Your task to perform on an android device: Go to sound settings Image 0: 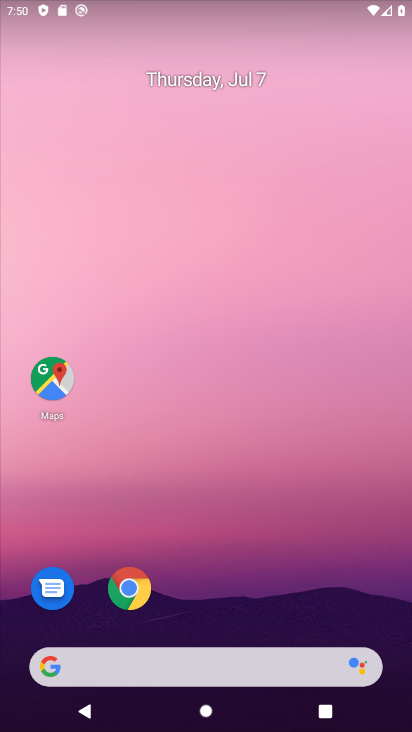
Step 0: drag from (50, 716) to (208, 95)
Your task to perform on an android device: Go to sound settings Image 1: 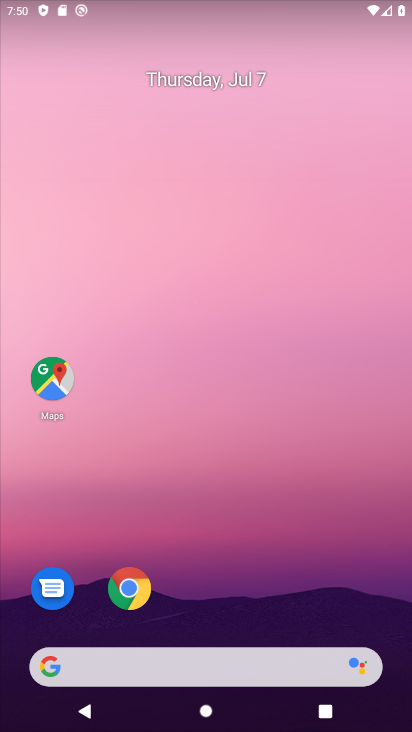
Step 1: drag from (25, 711) to (235, 8)
Your task to perform on an android device: Go to sound settings Image 2: 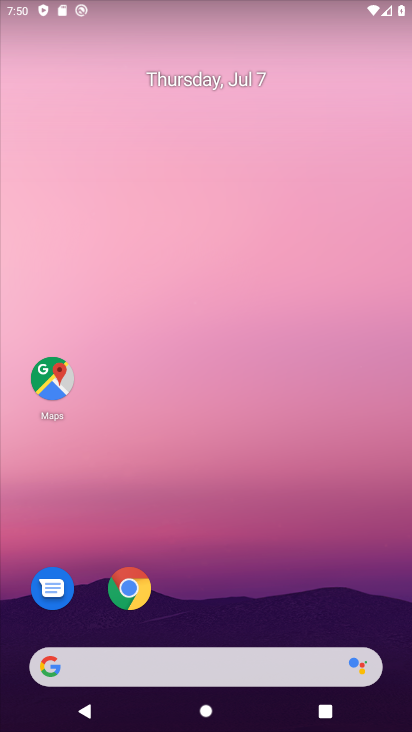
Step 2: drag from (27, 709) to (247, 5)
Your task to perform on an android device: Go to sound settings Image 3: 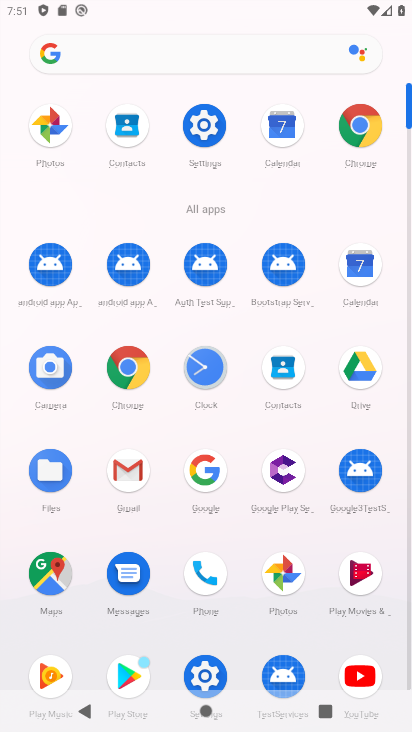
Step 3: click (205, 668)
Your task to perform on an android device: Go to sound settings Image 4: 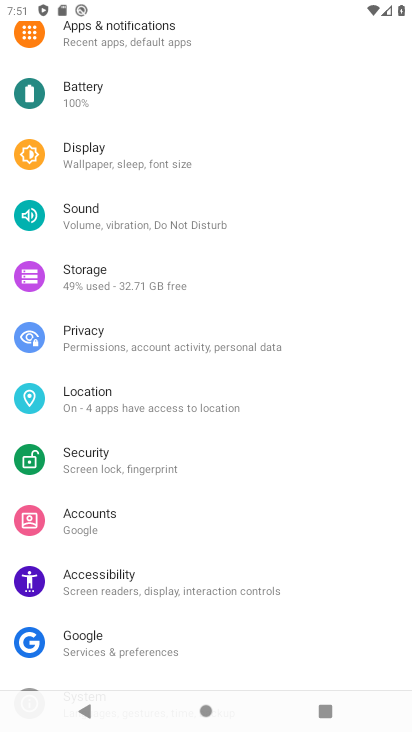
Step 4: click (148, 220)
Your task to perform on an android device: Go to sound settings Image 5: 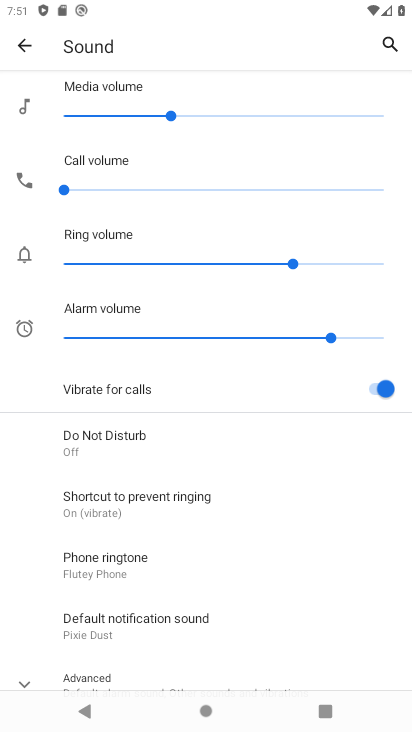
Step 5: task complete